Your task to perform on an android device: stop showing notifications on the lock screen Image 0: 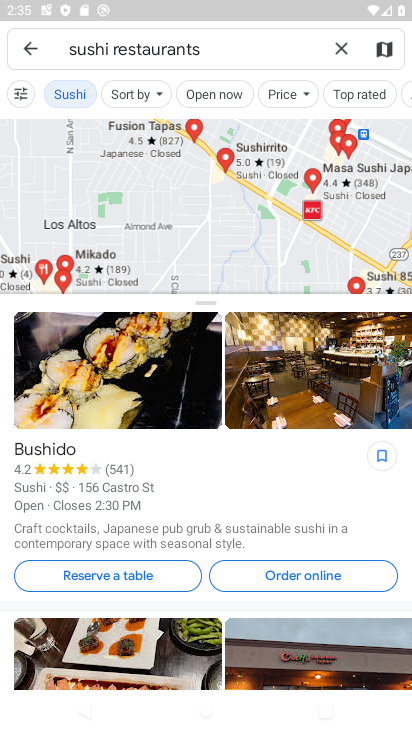
Step 0: press home button
Your task to perform on an android device: stop showing notifications on the lock screen Image 1: 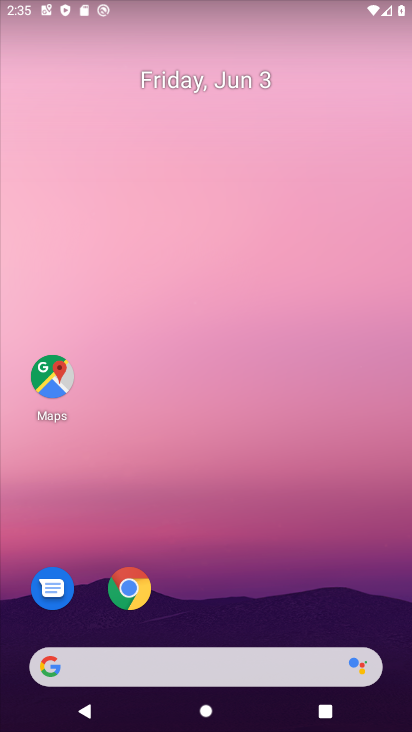
Step 1: drag from (227, 626) to (225, 67)
Your task to perform on an android device: stop showing notifications on the lock screen Image 2: 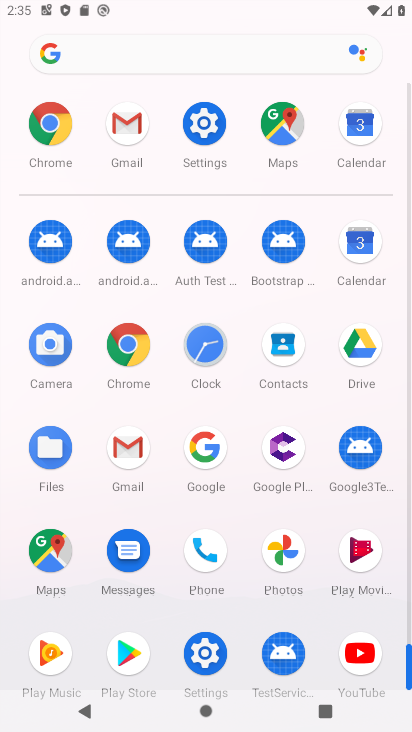
Step 2: click (218, 660)
Your task to perform on an android device: stop showing notifications on the lock screen Image 3: 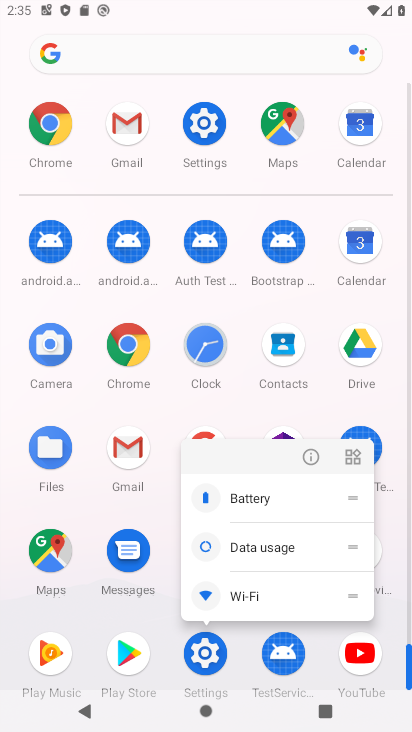
Step 3: click (202, 660)
Your task to perform on an android device: stop showing notifications on the lock screen Image 4: 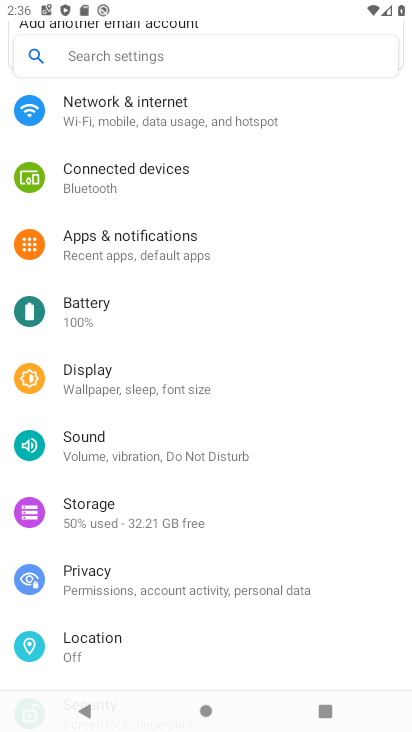
Step 4: click (177, 239)
Your task to perform on an android device: stop showing notifications on the lock screen Image 5: 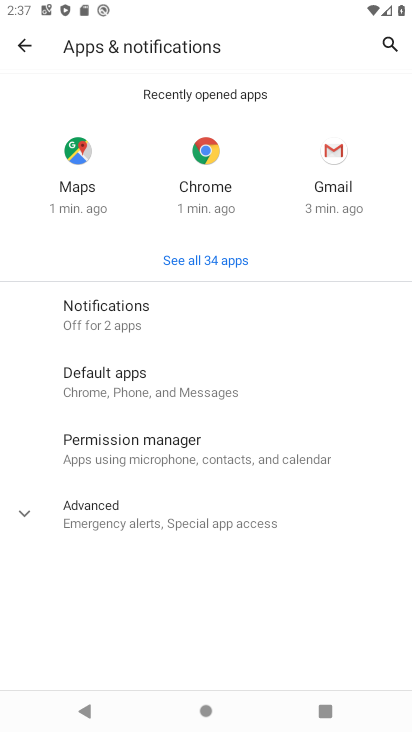
Step 5: click (192, 330)
Your task to perform on an android device: stop showing notifications on the lock screen Image 6: 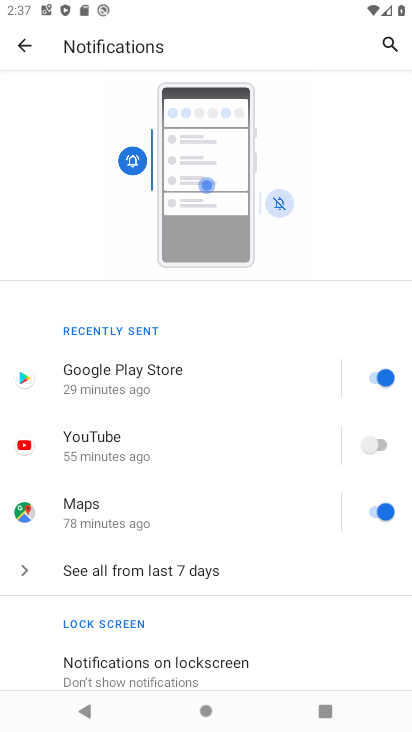
Step 6: click (194, 670)
Your task to perform on an android device: stop showing notifications on the lock screen Image 7: 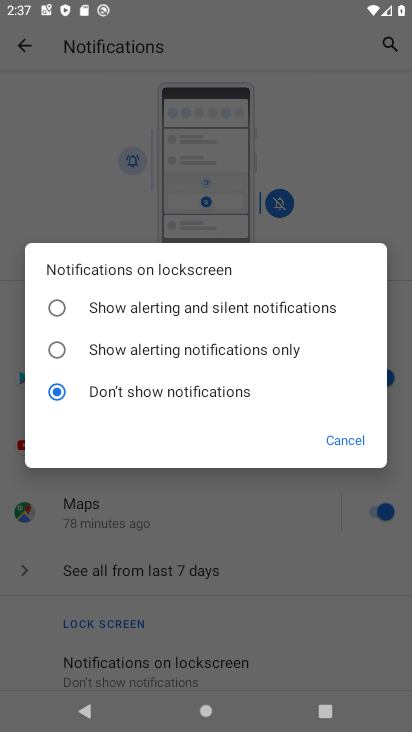
Step 7: task complete